Your task to perform on an android device: Open display settings Image 0: 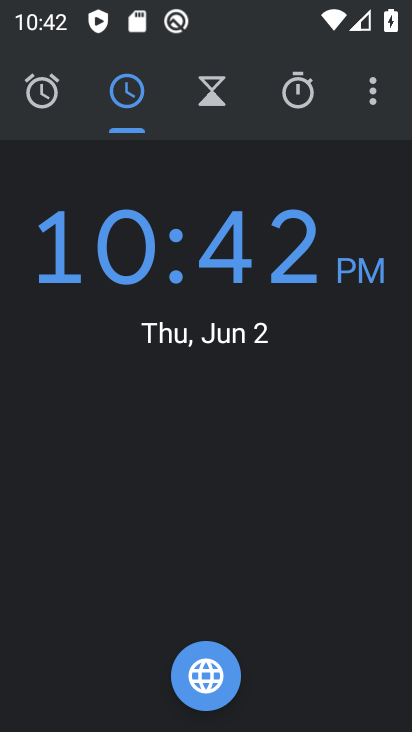
Step 0: press back button
Your task to perform on an android device: Open display settings Image 1: 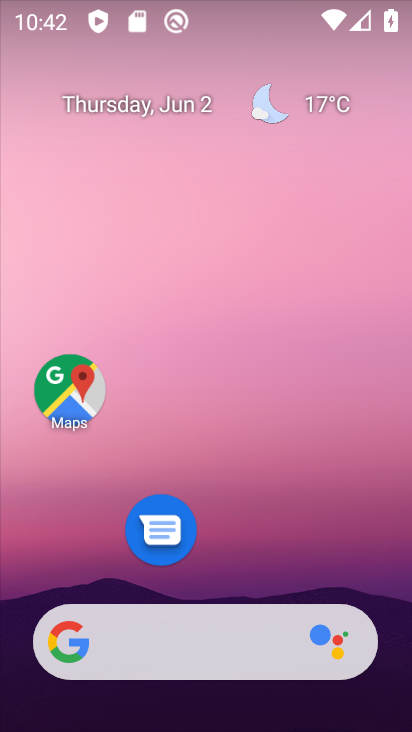
Step 1: drag from (293, 687) to (230, 179)
Your task to perform on an android device: Open display settings Image 2: 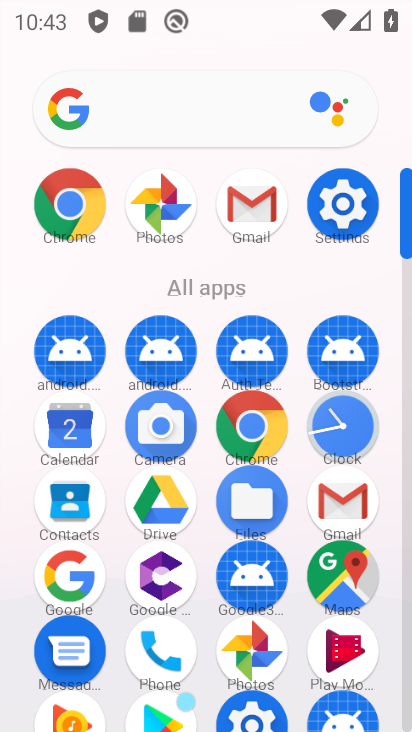
Step 2: click (334, 214)
Your task to perform on an android device: Open display settings Image 3: 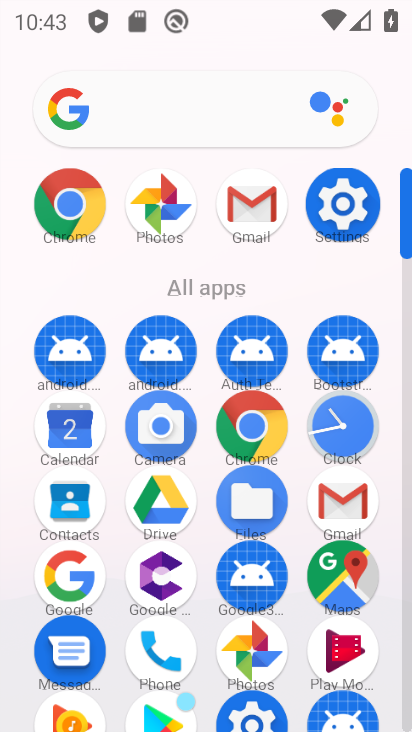
Step 3: click (332, 216)
Your task to perform on an android device: Open display settings Image 4: 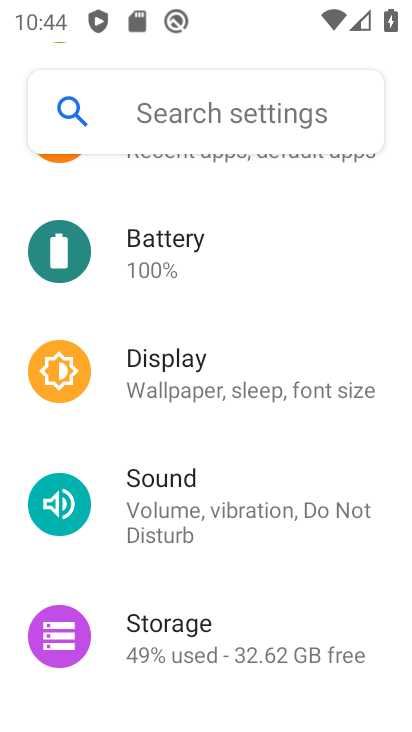
Step 4: click (146, 382)
Your task to perform on an android device: Open display settings Image 5: 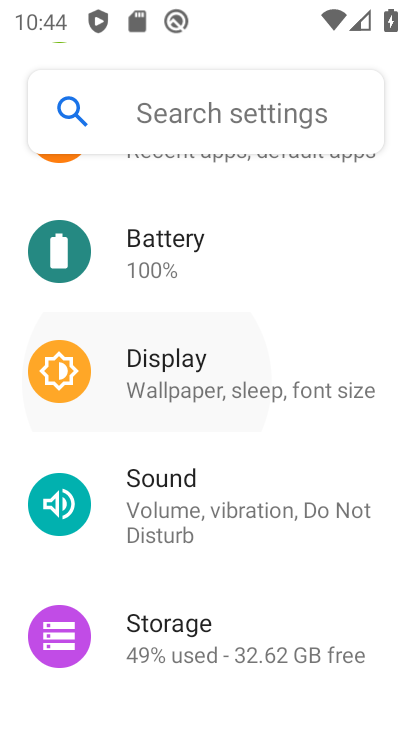
Step 5: click (146, 382)
Your task to perform on an android device: Open display settings Image 6: 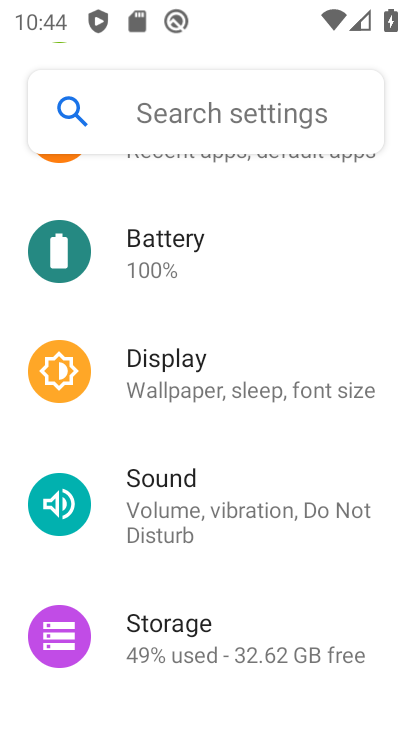
Step 6: click (147, 381)
Your task to perform on an android device: Open display settings Image 7: 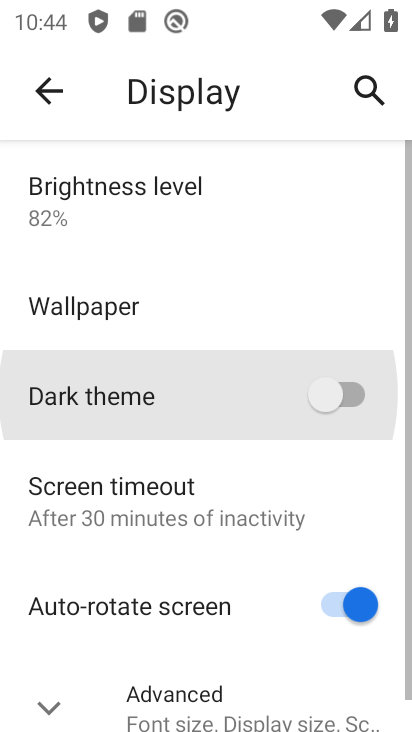
Step 7: click (147, 381)
Your task to perform on an android device: Open display settings Image 8: 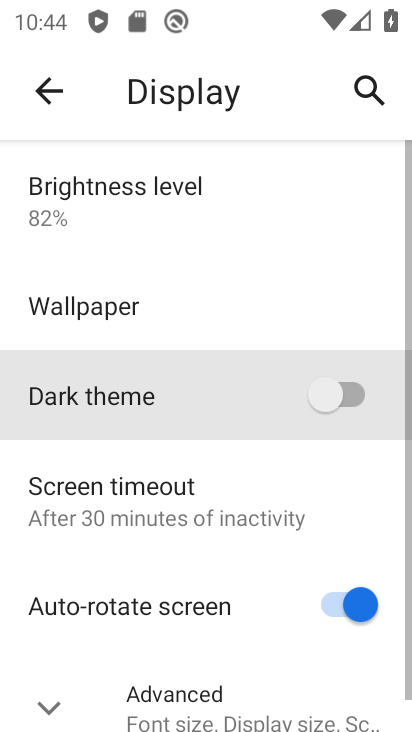
Step 8: click (147, 381)
Your task to perform on an android device: Open display settings Image 9: 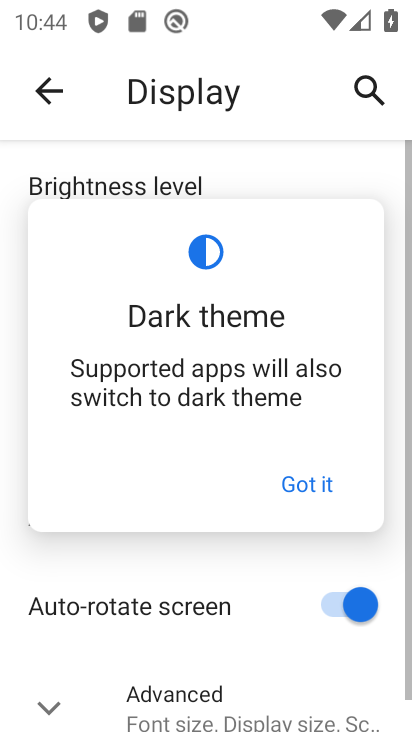
Step 9: click (147, 381)
Your task to perform on an android device: Open display settings Image 10: 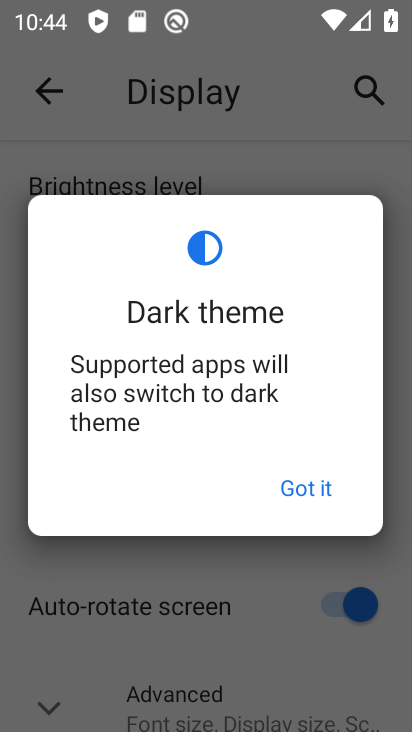
Step 10: click (310, 484)
Your task to perform on an android device: Open display settings Image 11: 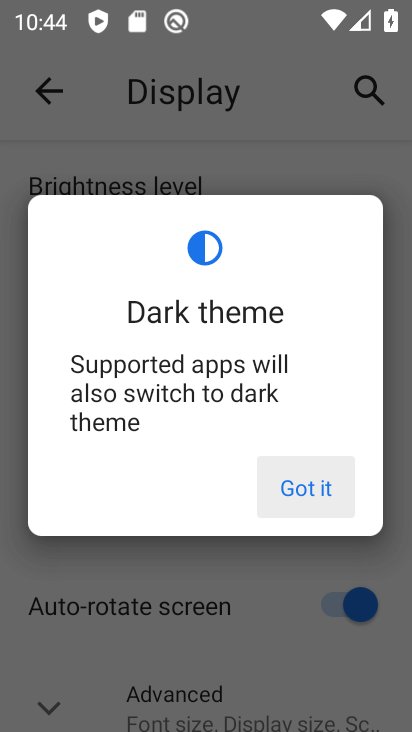
Step 11: click (310, 484)
Your task to perform on an android device: Open display settings Image 12: 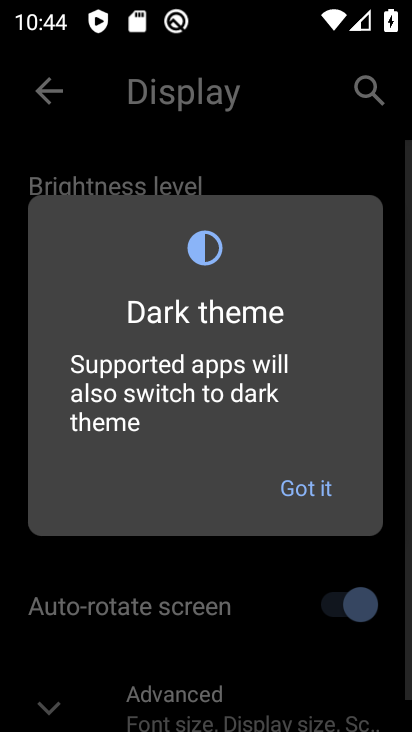
Step 12: click (303, 490)
Your task to perform on an android device: Open display settings Image 13: 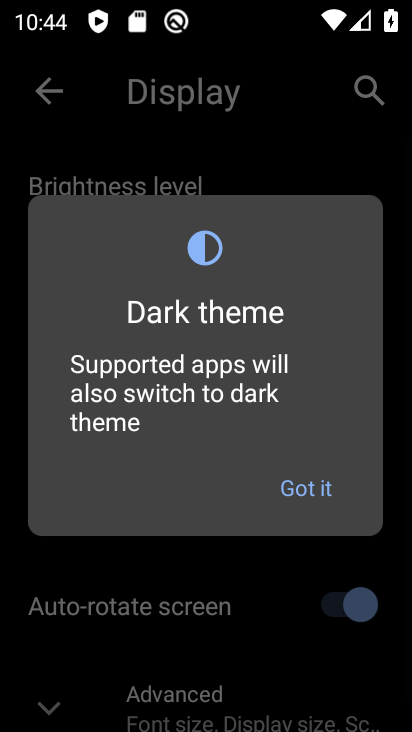
Step 13: click (303, 488)
Your task to perform on an android device: Open display settings Image 14: 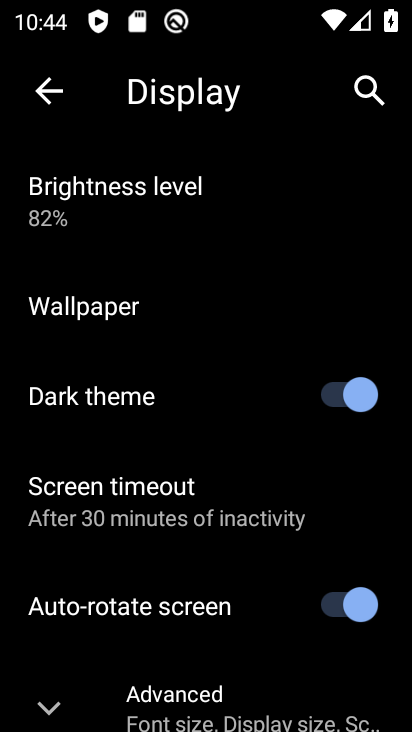
Step 14: click (278, 177)
Your task to perform on an android device: Open display settings Image 15: 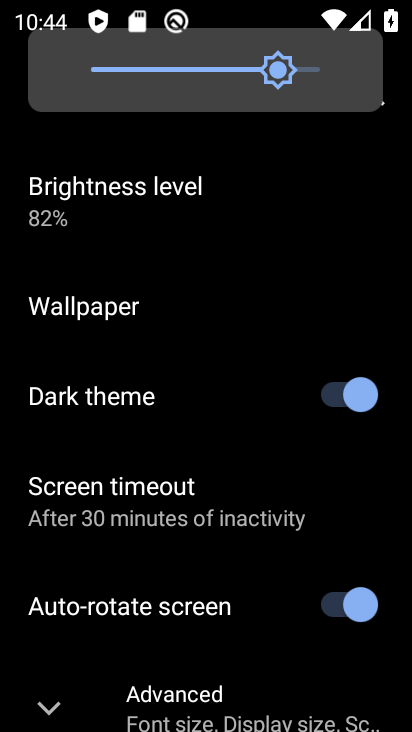
Step 15: click (347, 391)
Your task to perform on an android device: Open display settings Image 16: 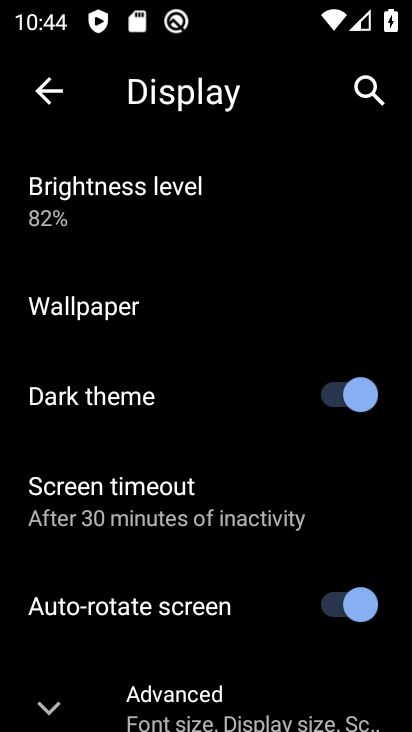
Step 16: click (353, 391)
Your task to perform on an android device: Open display settings Image 17: 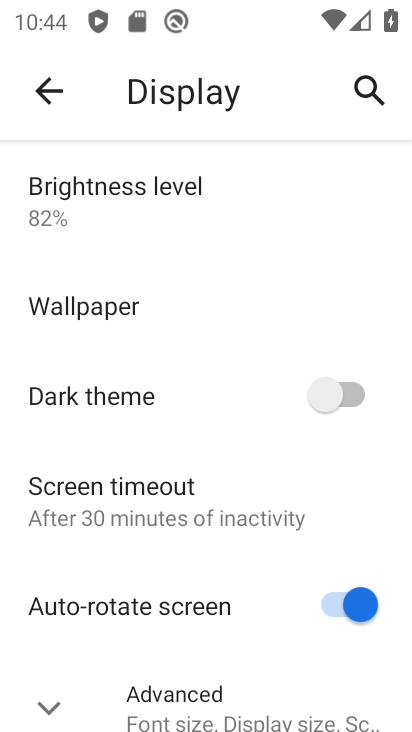
Step 17: task complete